Your task to perform on an android device: Do I have any events this weekend? Image 0: 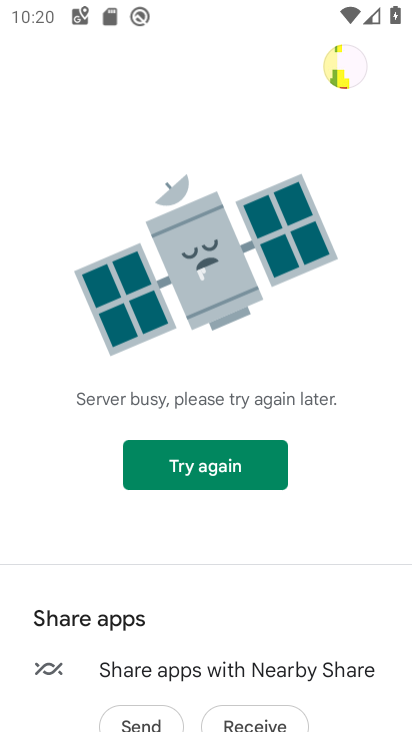
Step 0: press home button
Your task to perform on an android device: Do I have any events this weekend? Image 1: 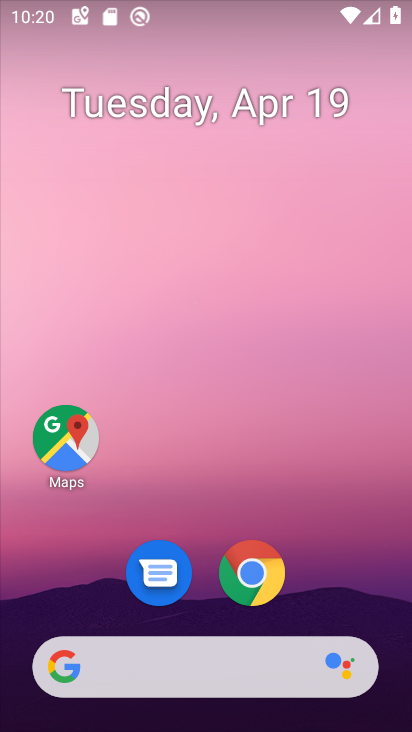
Step 1: drag from (324, 575) to (238, 101)
Your task to perform on an android device: Do I have any events this weekend? Image 2: 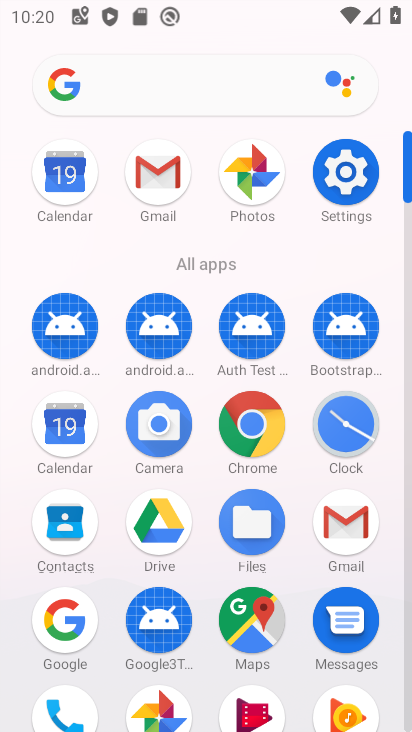
Step 2: click (57, 180)
Your task to perform on an android device: Do I have any events this weekend? Image 3: 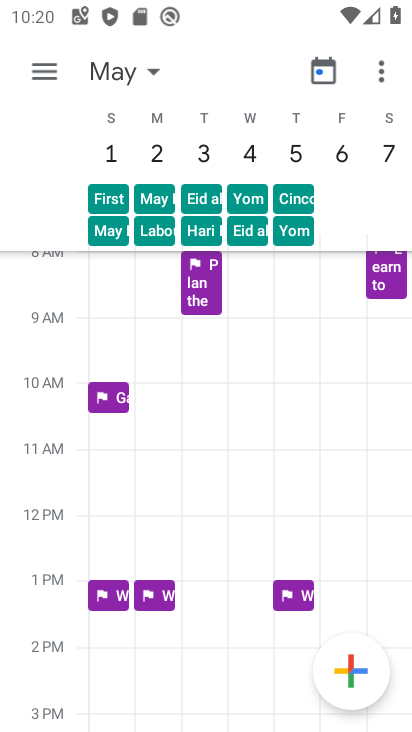
Step 3: task complete